Your task to perform on an android device: Open Wikipedia Image 0: 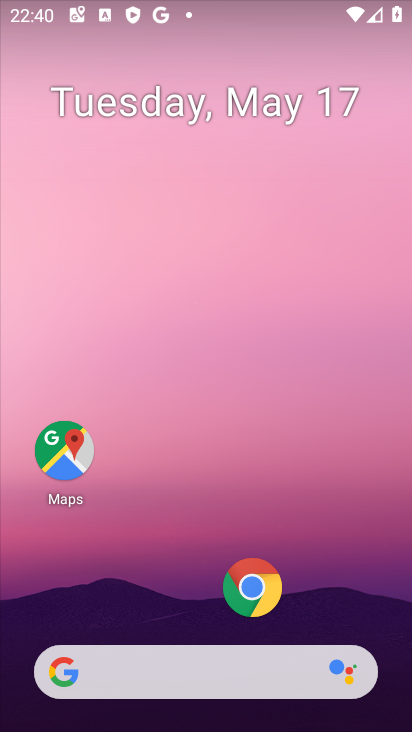
Step 0: drag from (157, 431) to (123, 176)
Your task to perform on an android device: Open Wikipedia Image 1: 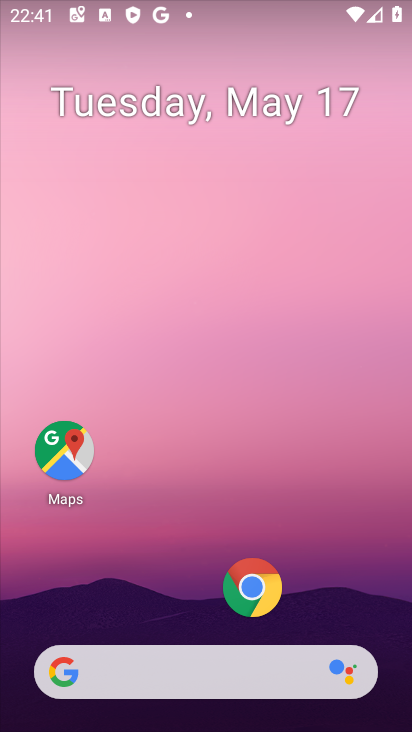
Step 1: drag from (166, 593) to (92, 11)
Your task to perform on an android device: Open Wikipedia Image 2: 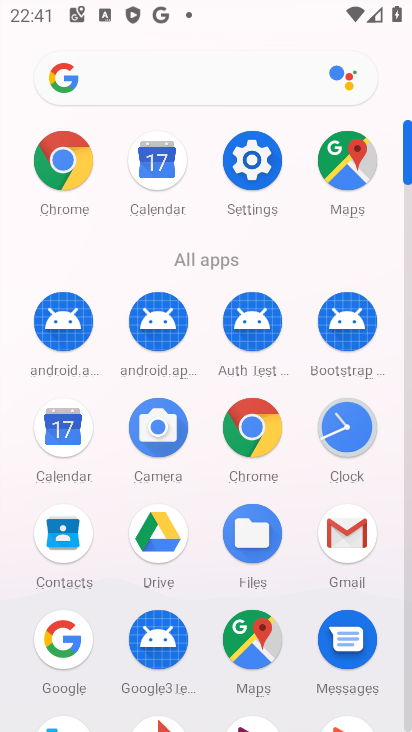
Step 2: click (266, 453)
Your task to perform on an android device: Open Wikipedia Image 3: 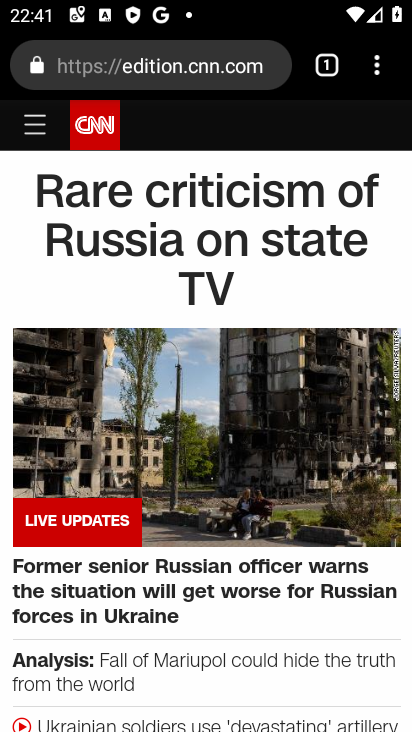
Step 3: click (331, 70)
Your task to perform on an android device: Open Wikipedia Image 4: 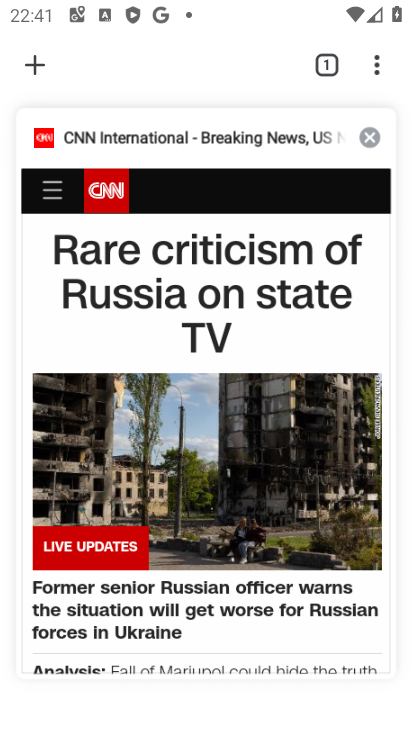
Step 4: click (42, 65)
Your task to perform on an android device: Open Wikipedia Image 5: 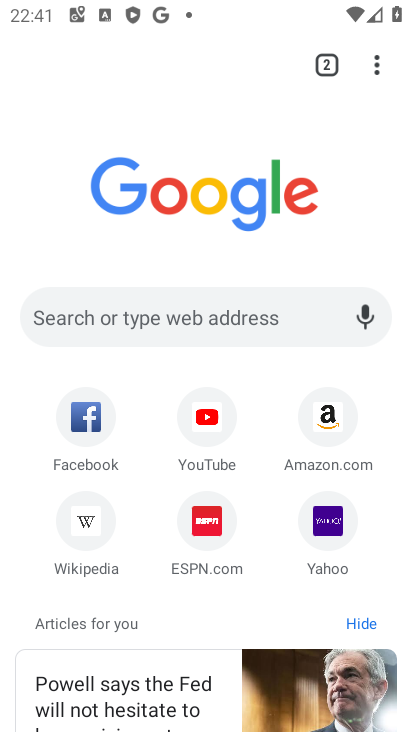
Step 5: click (92, 517)
Your task to perform on an android device: Open Wikipedia Image 6: 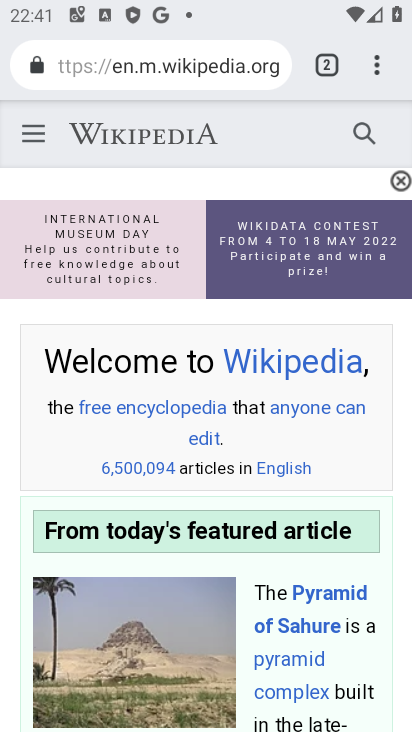
Step 6: task complete